Your task to perform on an android device: refresh tabs in the chrome app Image 0: 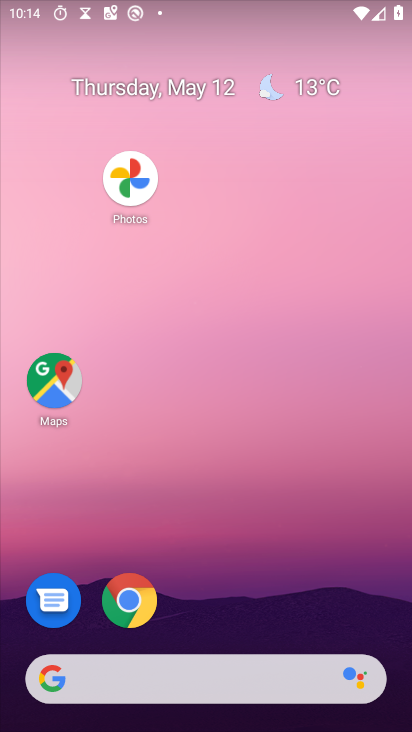
Step 0: drag from (360, 525) to (67, 0)
Your task to perform on an android device: refresh tabs in the chrome app Image 1: 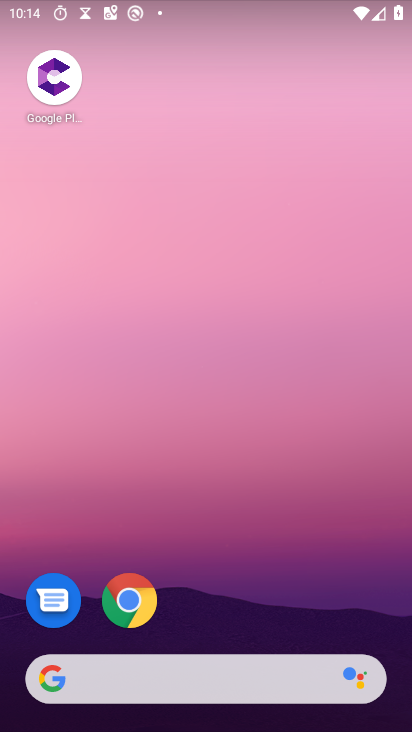
Step 1: drag from (304, 598) to (180, 196)
Your task to perform on an android device: refresh tabs in the chrome app Image 2: 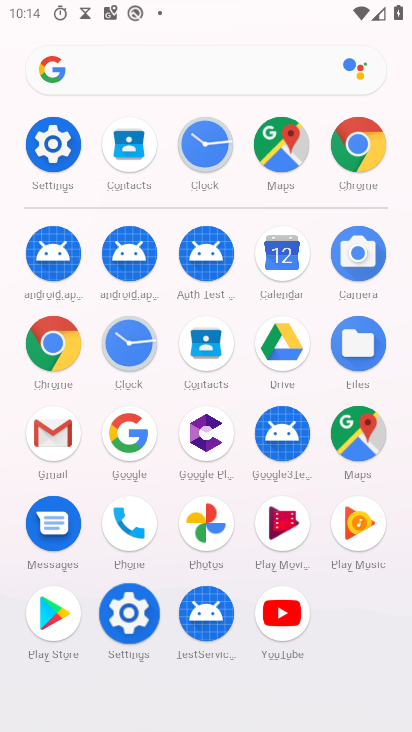
Step 2: drag from (244, 514) to (180, 142)
Your task to perform on an android device: refresh tabs in the chrome app Image 3: 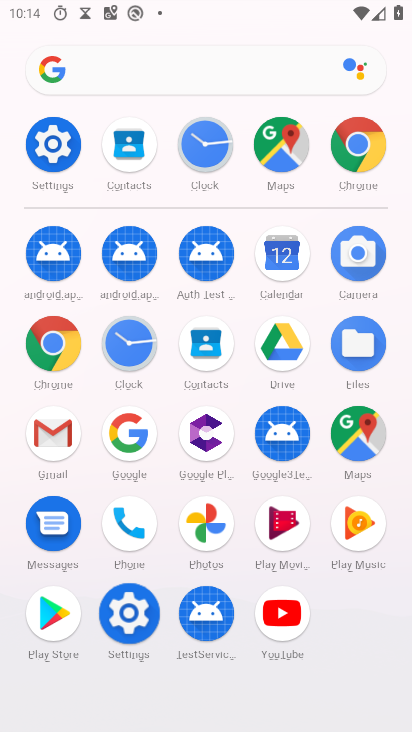
Step 3: click (365, 144)
Your task to perform on an android device: refresh tabs in the chrome app Image 4: 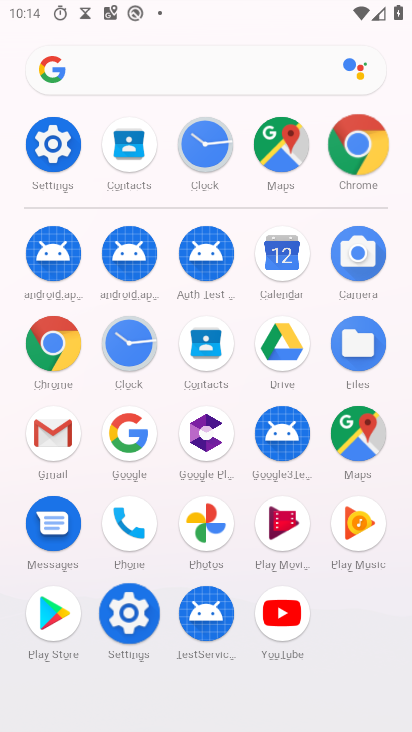
Step 4: click (365, 144)
Your task to perform on an android device: refresh tabs in the chrome app Image 5: 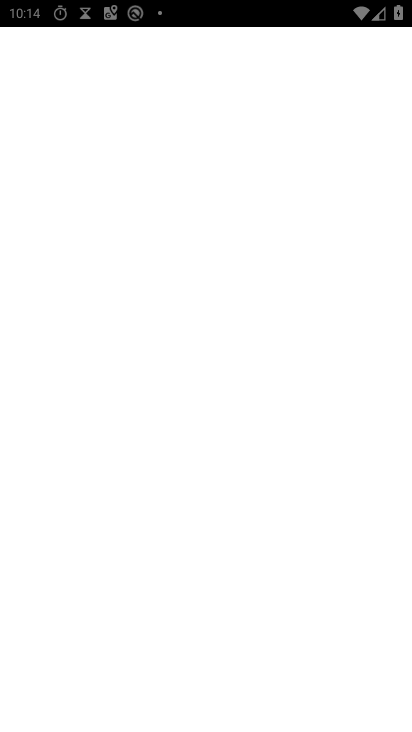
Step 5: click (364, 143)
Your task to perform on an android device: refresh tabs in the chrome app Image 6: 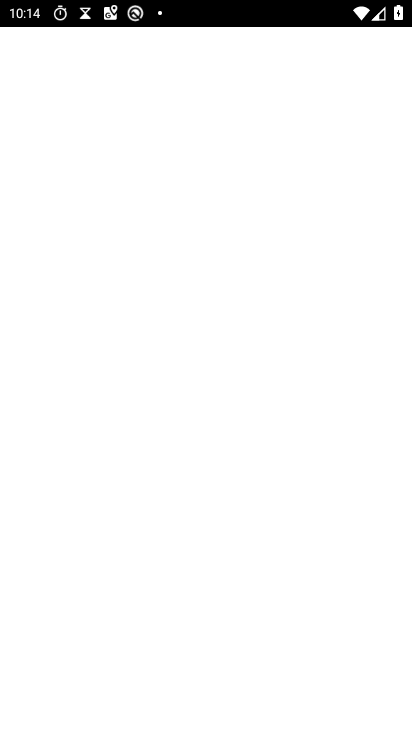
Step 6: click (364, 143)
Your task to perform on an android device: refresh tabs in the chrome app Image 7: 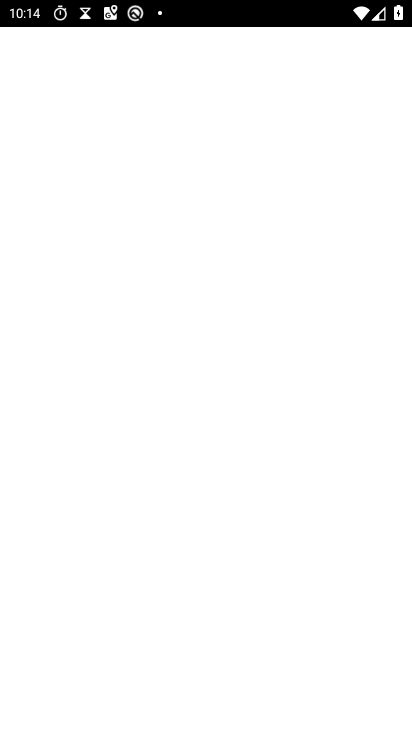
Step 7: click (364, 143)
Your task to perform on an android device: refresh tabs in the chrome app Image 8: 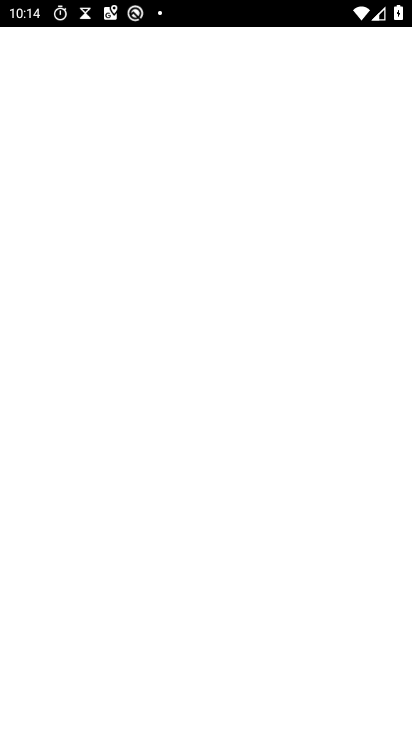
Step 8: click (364, 143)
Your task to perform on an android device: refresh tabs in the chrome app Image 9: 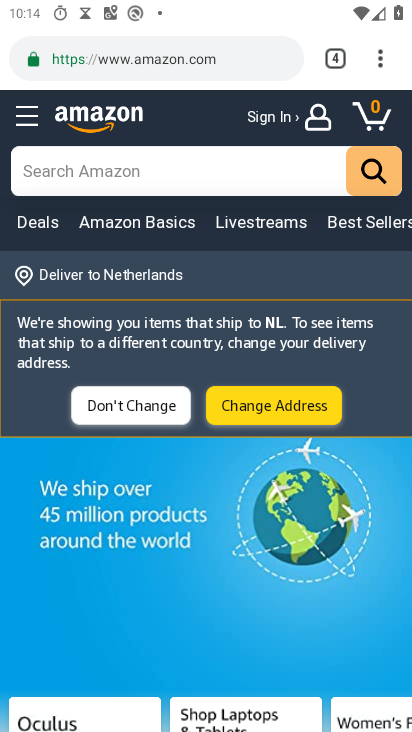
Step 9: click (383, 62)
Your task to perform on an android device: refresh tabs in the chrome app Image 10: 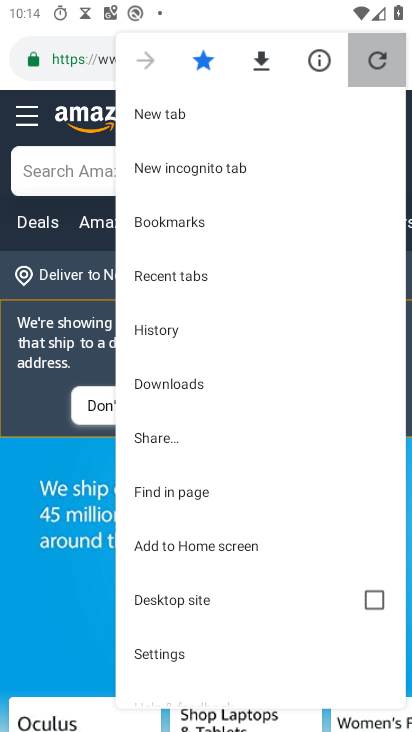
Step 10: click (376, 63)
Your task to perform on an android device: refresh tabs in the chrome app Image 11: 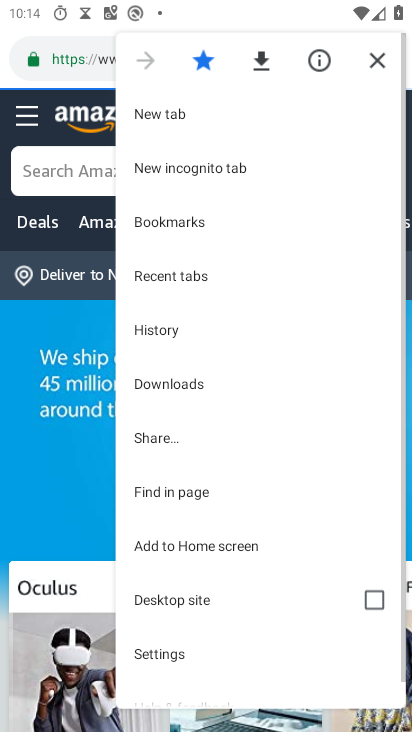
Step 11: click (376, 63)
Your task to perform on an android device: refresh tabs in the chrome app Image 12: 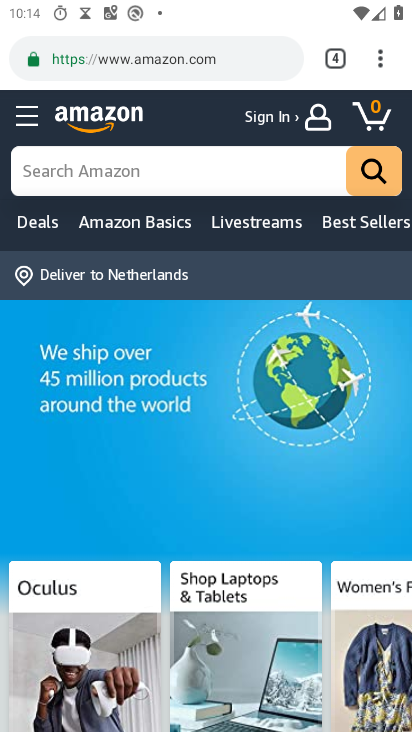
Step 12: task complete